Your task to perform on an android device: Open Google Image 0: 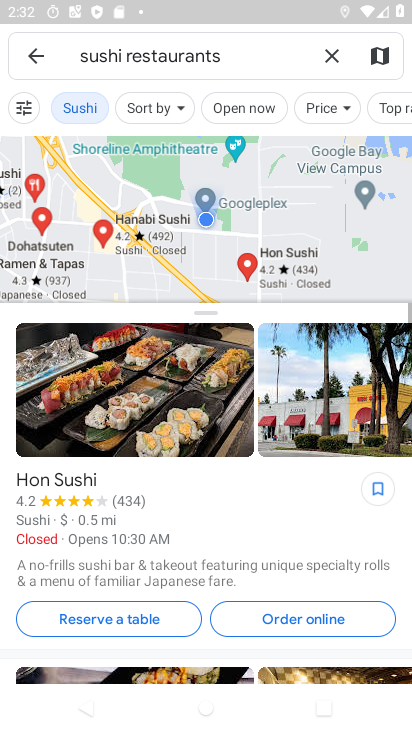
Step 0: drag from (161, 623) to (214, 265)
Your task to perform on an android device: Open Google Image 1: 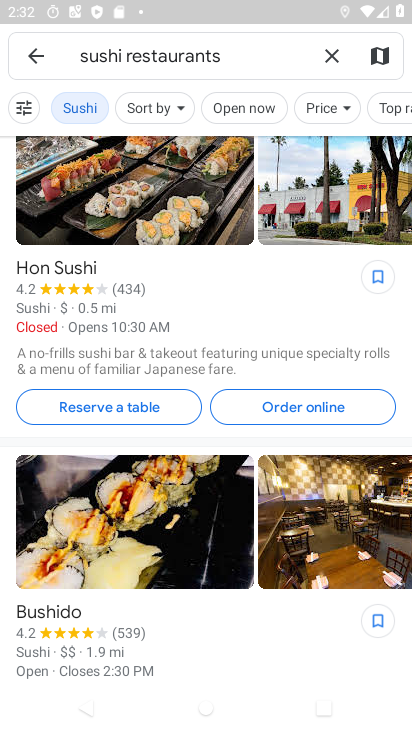
Step 1: press home button
Your task to perform on an android device: Open Google Image 2: 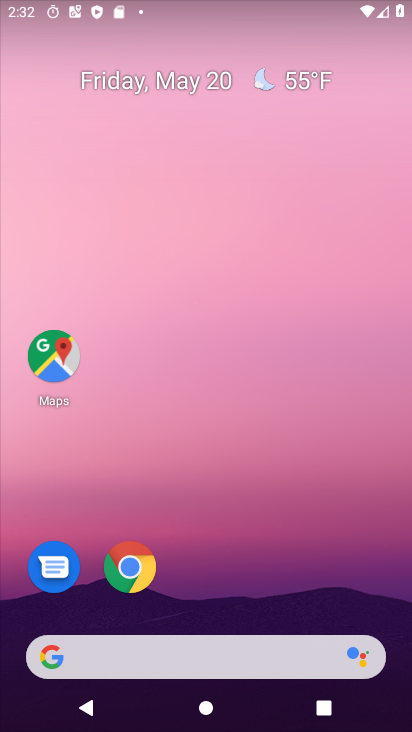
Step 2: drag from (154, 536) to (165, 157)
Your task to perform on an android device: Open Google Image 3: 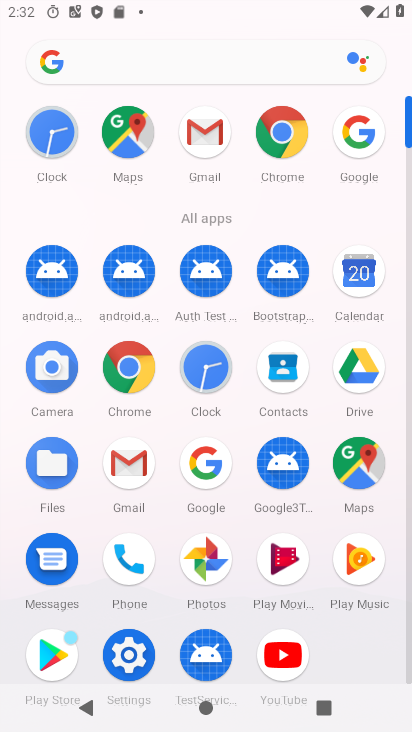
Step 3: click (211, 469)
Your task to perform on an android device: Open Google Image 4: 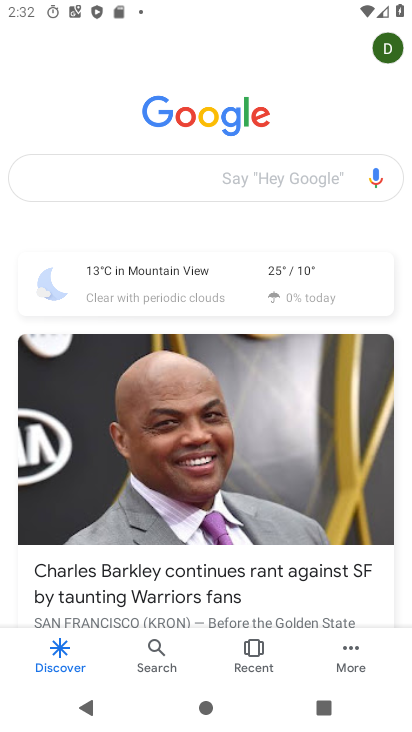
Step 4: task complete